Your task to perform on an android device: turn smart compose on in the gmail app Image 0: 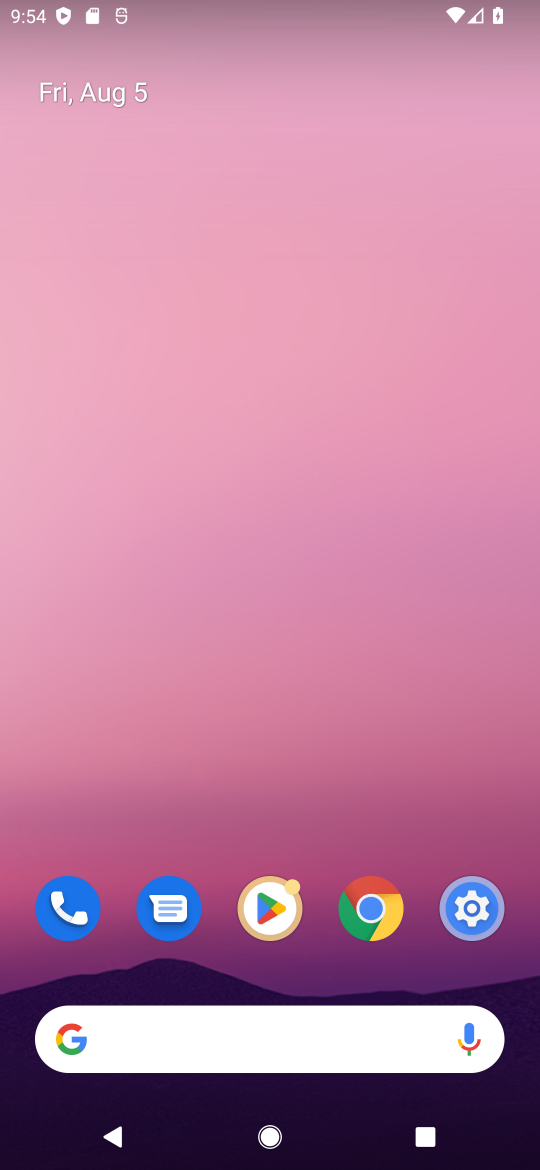
Step 0: drag from (316, 972) to (295, 348)
Your task to perform on an android device: turn smart compose on in the gmail app Image 1: 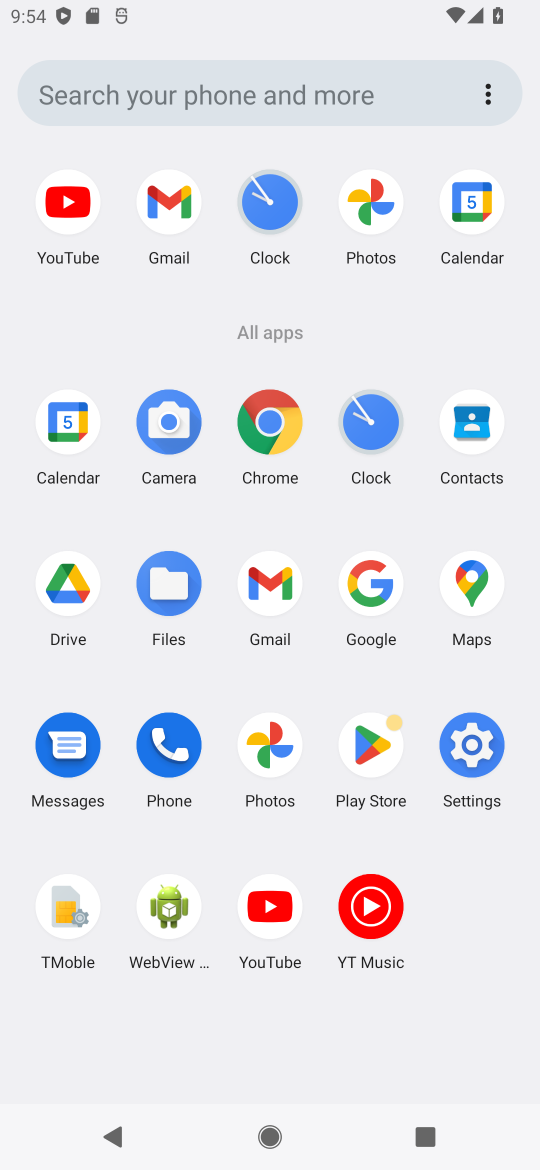
Step 1: click (184, 257)
Your task to perform on an android device: turn smart compose on in the gmail app Image 2: 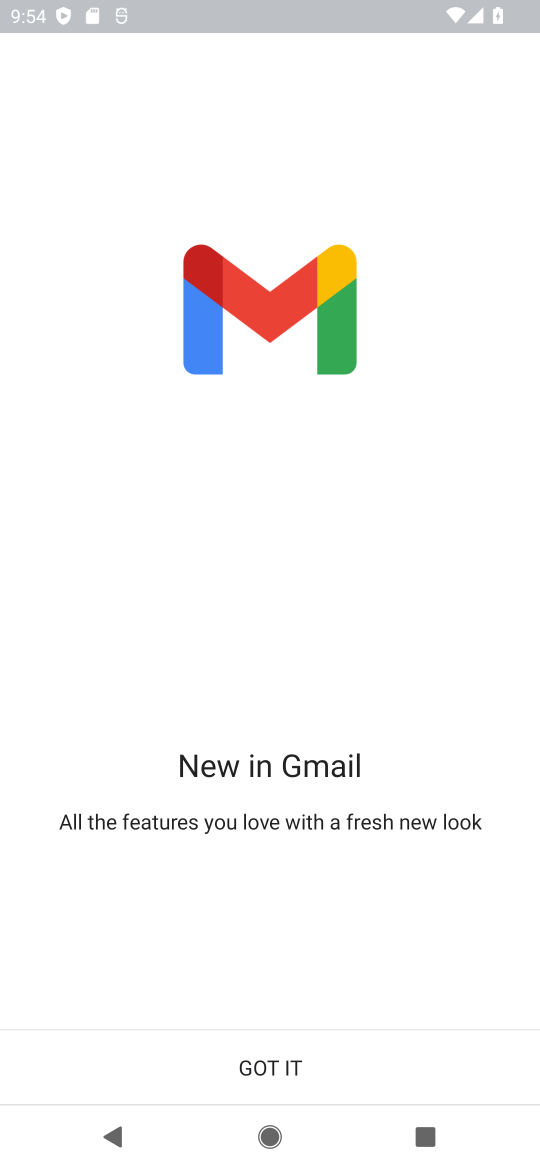
Step 2: click (361, 1034)
Your task to perform on an android device: turn smart compose on in the gmail app Image 3: 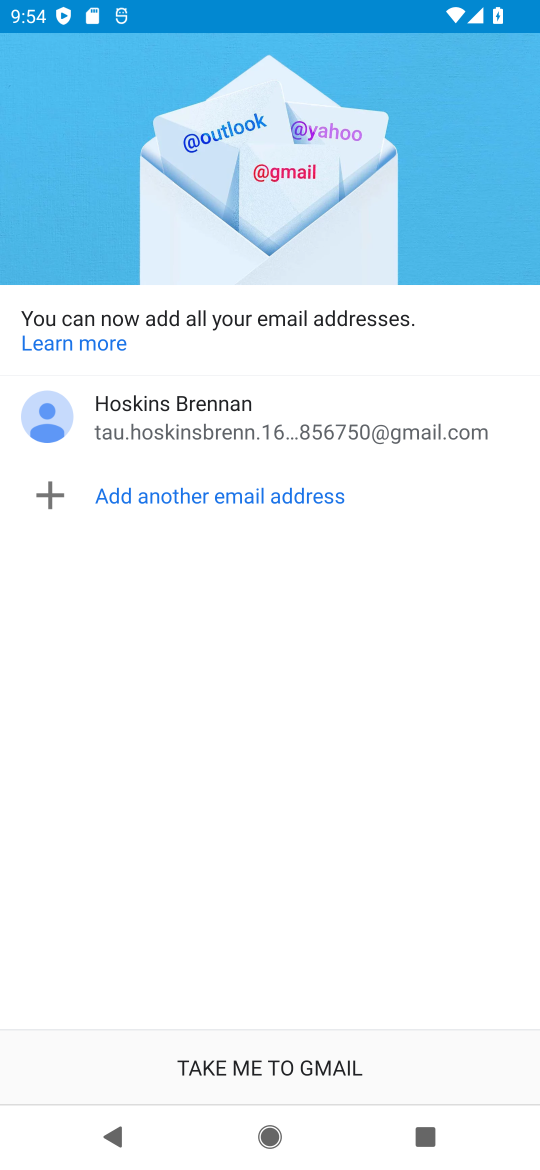
Step 3: click (361, 1034)
Your task to perform on an android device: turn smart compose on in the gmail app Image 4: 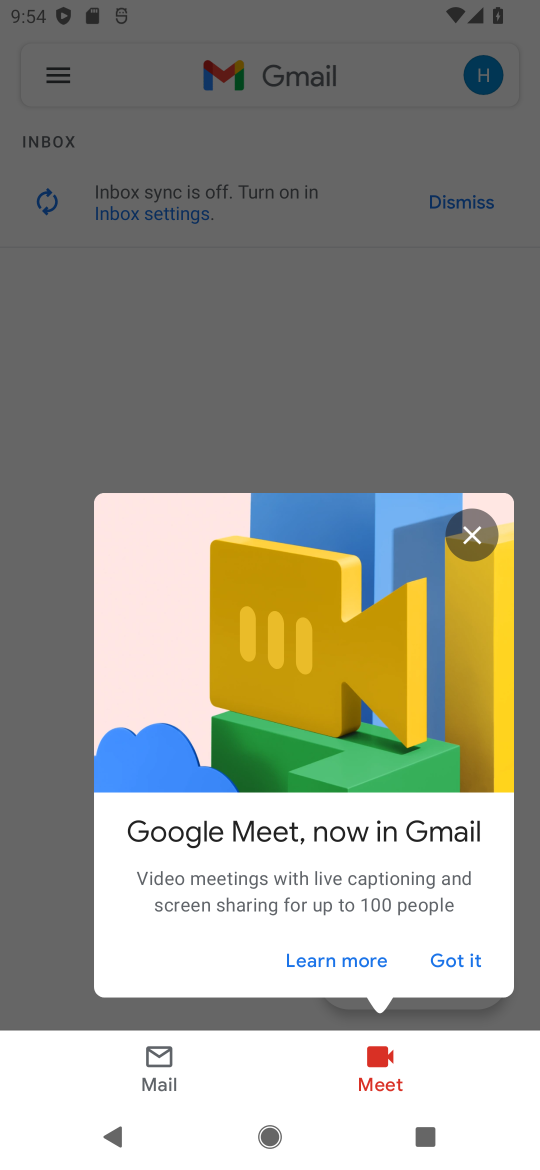
Step 4: task complete